Your task to perform on an android device: open chrome and create a bookmark for the current page Image 0: 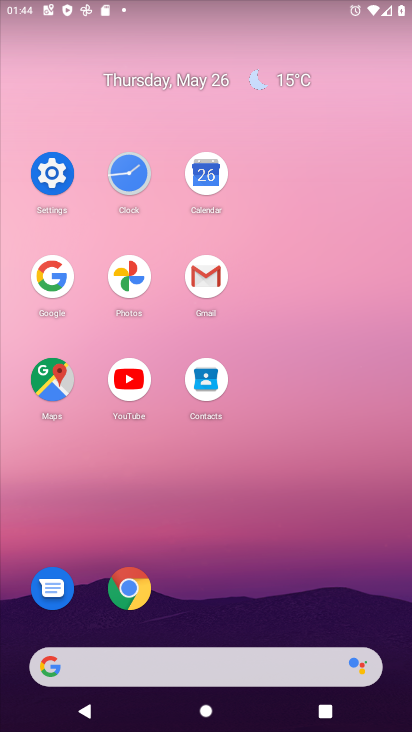
Step 0: click (141, 612)
Your task to perform on an android device: open chrome and create a bookmark for the current page Image 1: 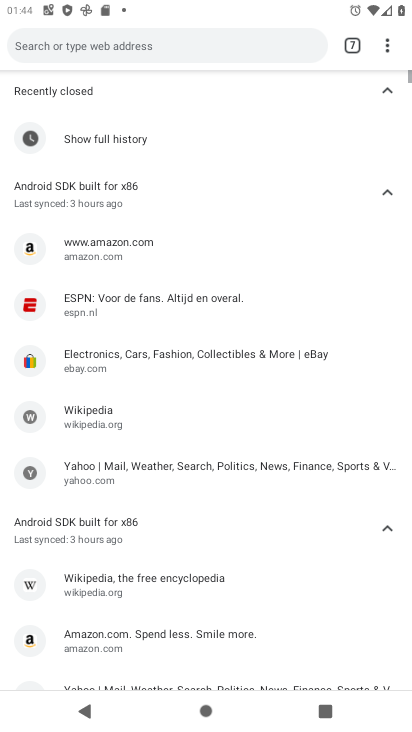
Step 1: click (384, 49)
Your task to perform on an android device: open chrome and create a bookmark for the current page Image 2: 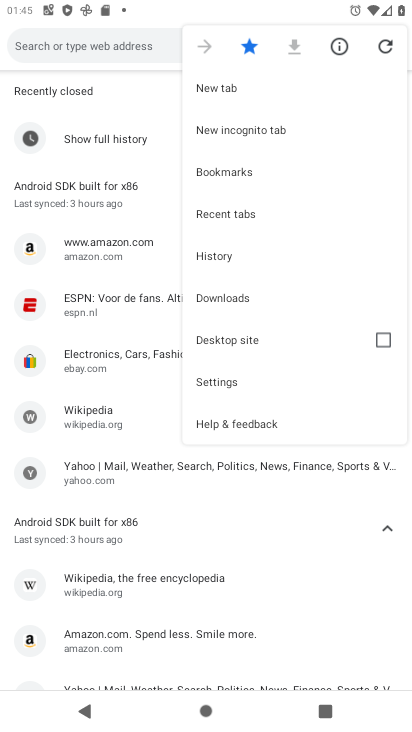
Step 2: task complete